Your task to perform on an android device: Go to notification settings Image 0: 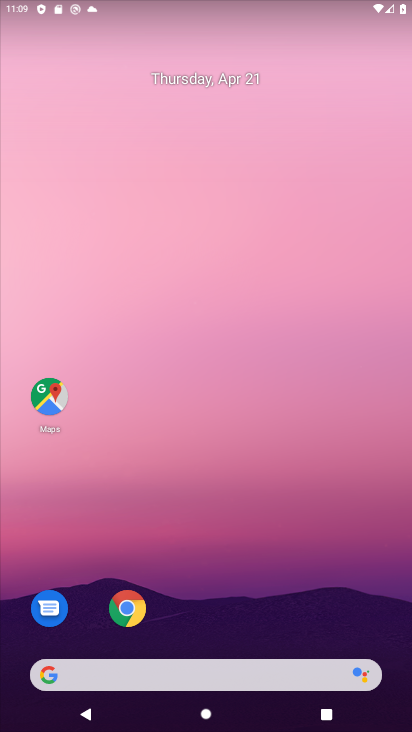
Step 0: drag from (161, 524) to (131, 255)
Your task to perform on an android device: Go to notification settings Image 1: 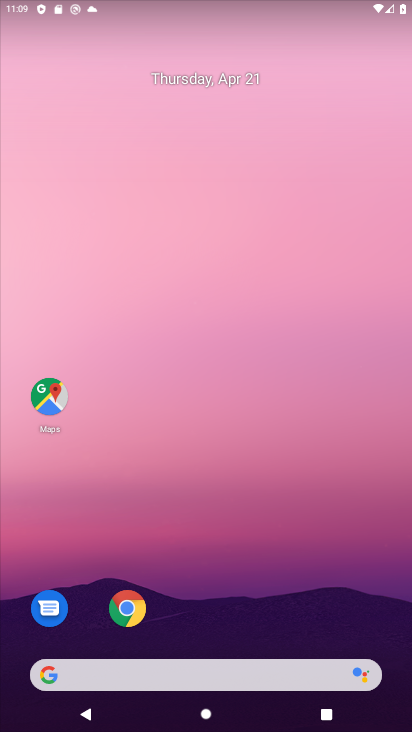
Step 1: drag from (281, 572) to (237, 93)
Your task to perform on an android device: Go to notification settings Image 2: 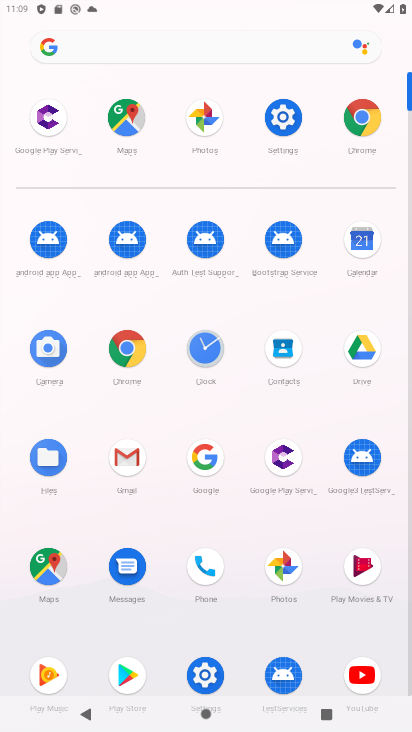
Step 2: click (280, 120)
Your task to perform on an android device: Go to notification settings Image 3: 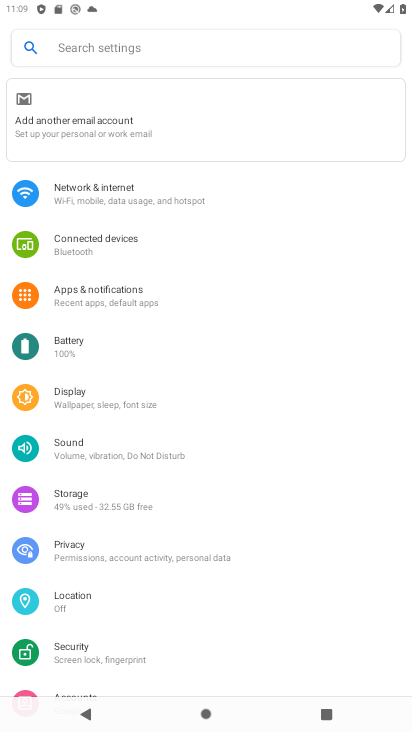
Step 3: click (101, 293)
Your task to perform on an android device: Go to notification settings Image 4: 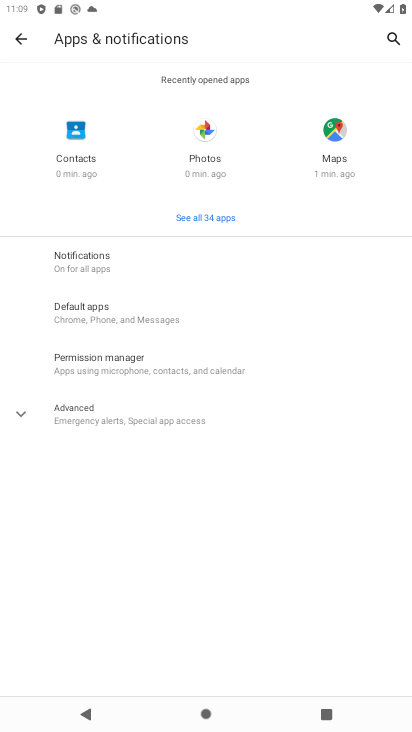
Step 4: click (90, 259)
Your task to perform on an android device: Go to notification settings Image 5: 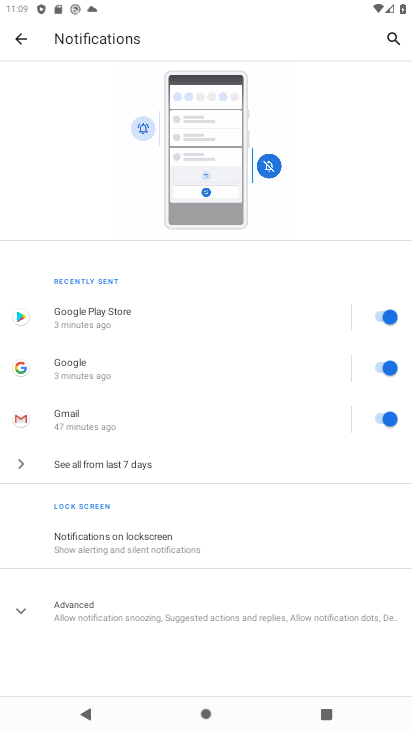
Step 5: click (170, 543)
Your task to perform on an android device: Go to notification settings Image 6: 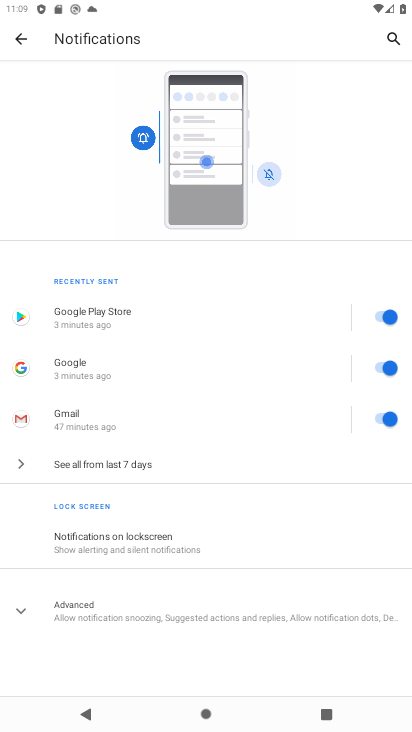
Step 6: click (109, 608)
Your task to perform on an android device: Go to notification settings Image 7: 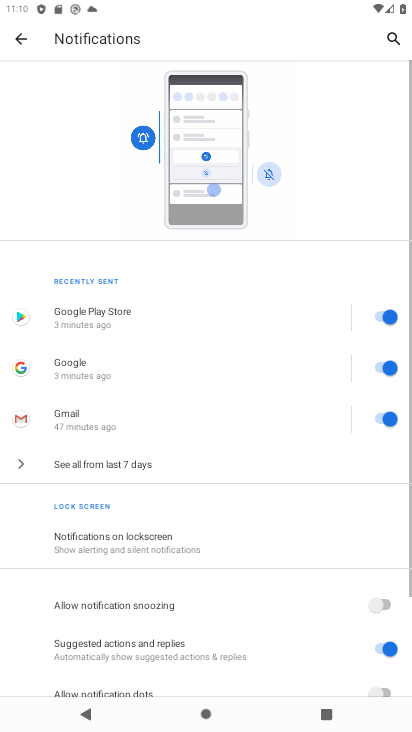
Step 7: task complete